Your task to perform on an android device: Go to wifi settings Image 0: 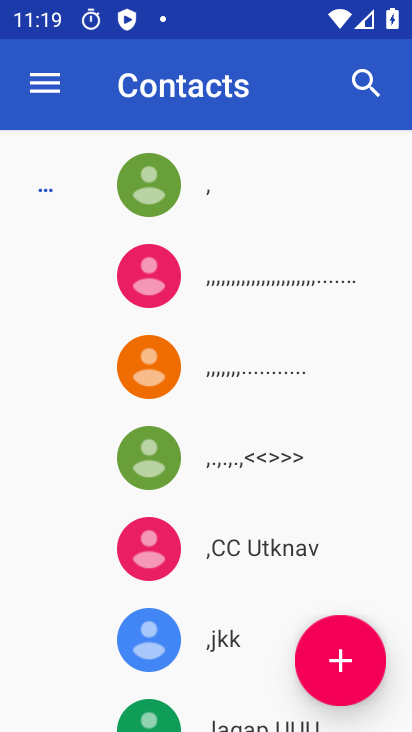
Step 0: press home button
Your task to perform on an android device: Go to wifi settings Image 1: 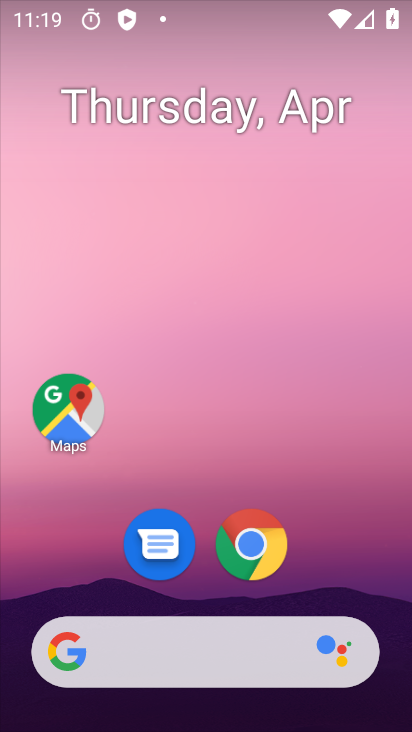
Step 1: drag from (140, 16) to (133, 477)
Your task to perform on an android device: Go to wifi settings Image 2: 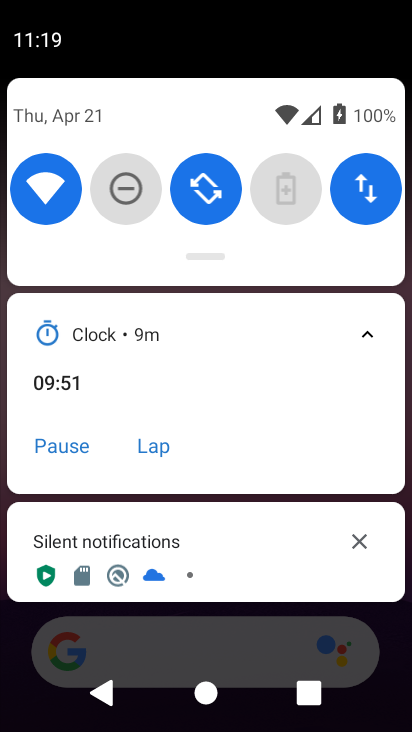
Step 2: click (57, 194)
Your task to perform on an android device: Go to wifi settings Image 3: 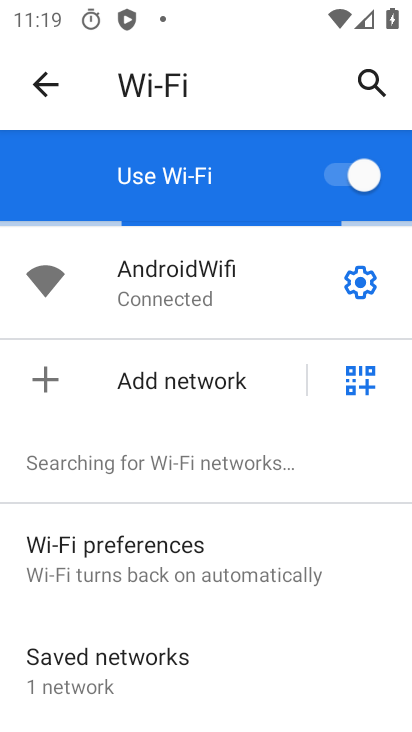
Step 3: click (360, 273)
Your task to perform on an android device: Go to wifi settings Image 4: 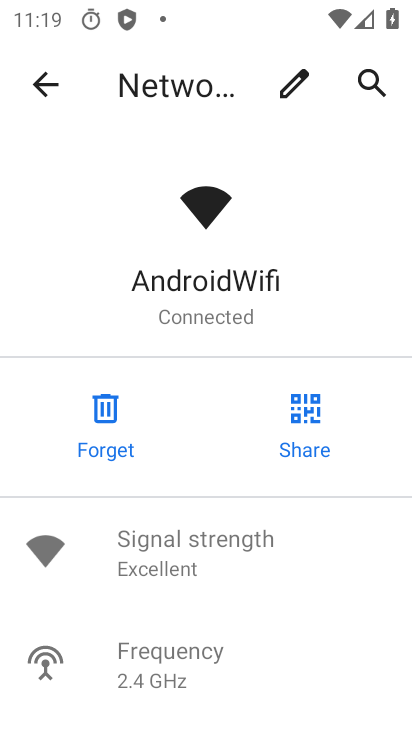
Step 4: click (191, 237)
Your task to perform on an android device: Go to wifi settings Image 5: 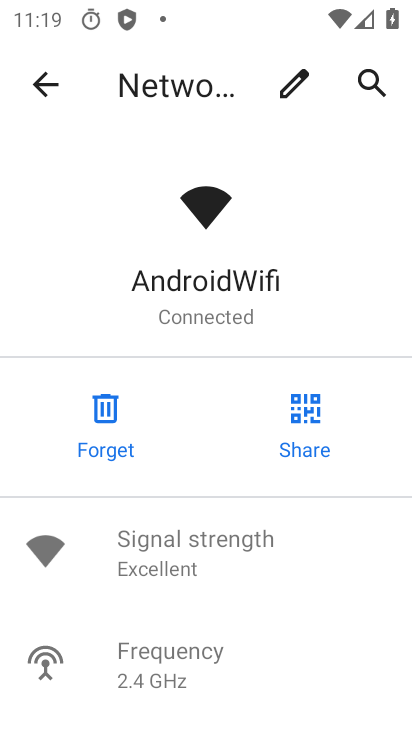
Step 5: task complete